Your task to perform on an android device: open app "Indeed Job Search" Image 0: 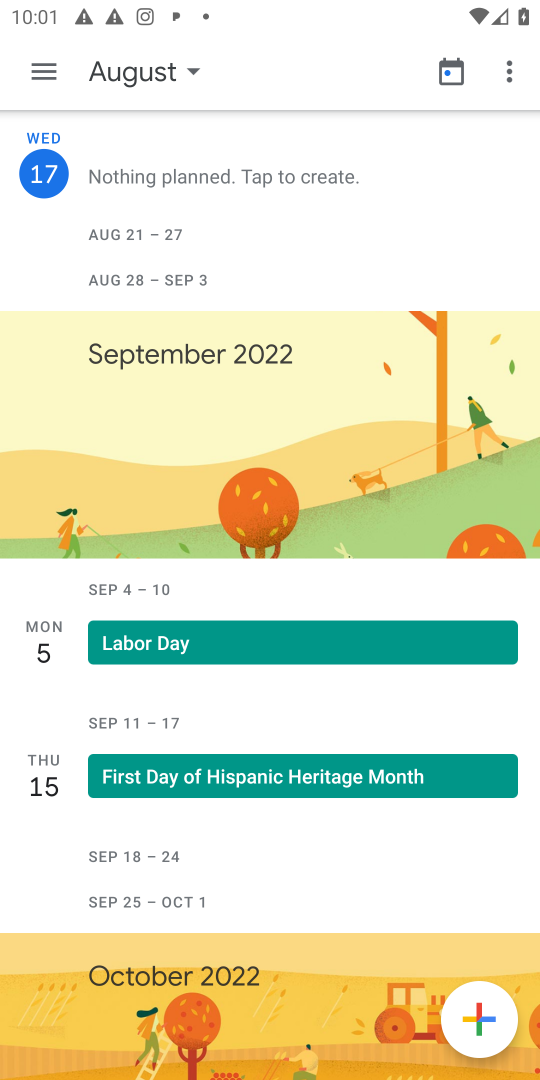
Step 0: press home button
Your task to perform on an android device: open app "Indeed Job Search" Image 1: 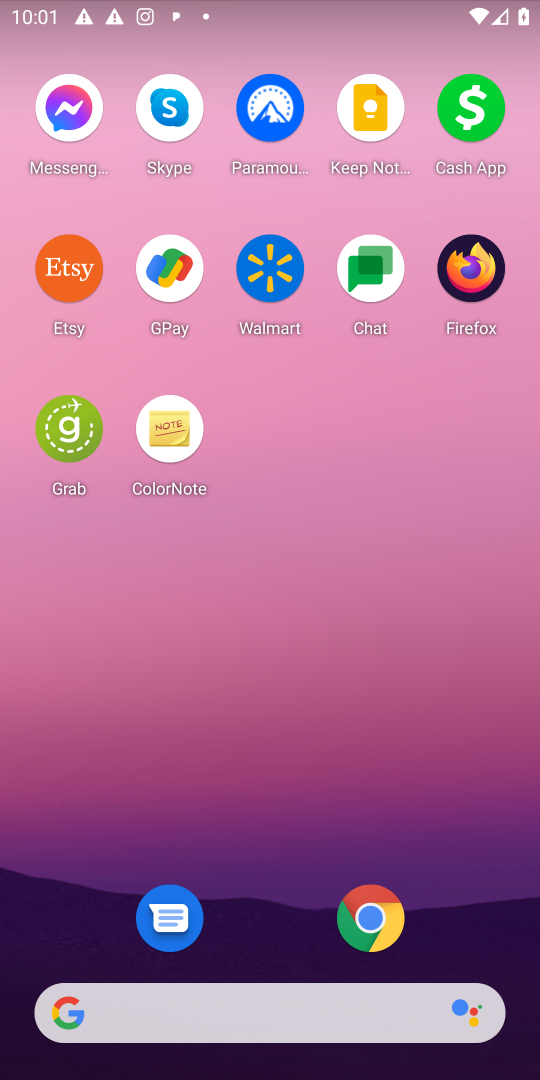
Step 1: press home button
Your task to perform on an android device: open app "Indeed Job Search" Image 2: 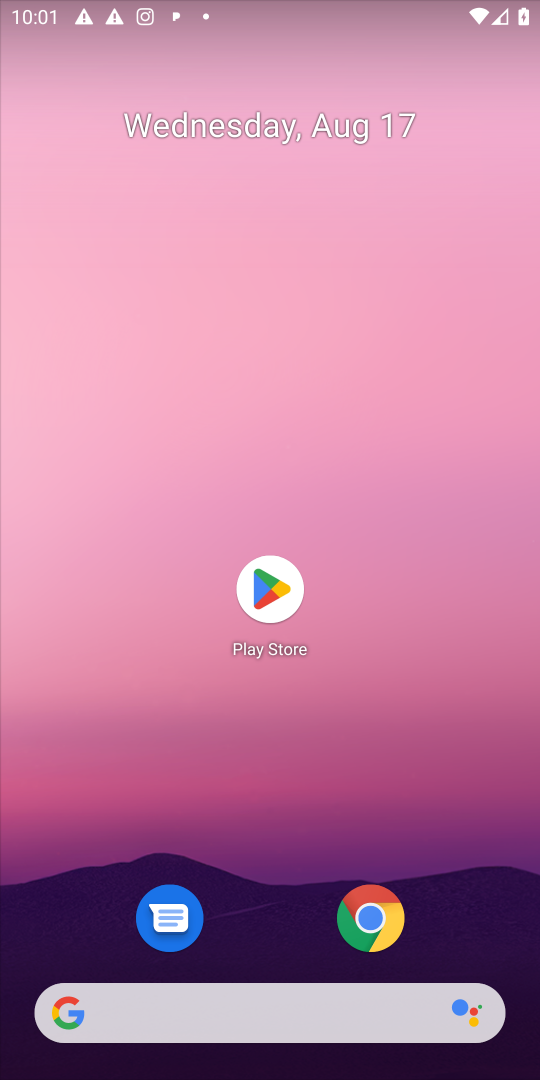
Step 2: click (274, 593)
Your task to perform on an android device: open app "Indeed Job Search" Image 3: 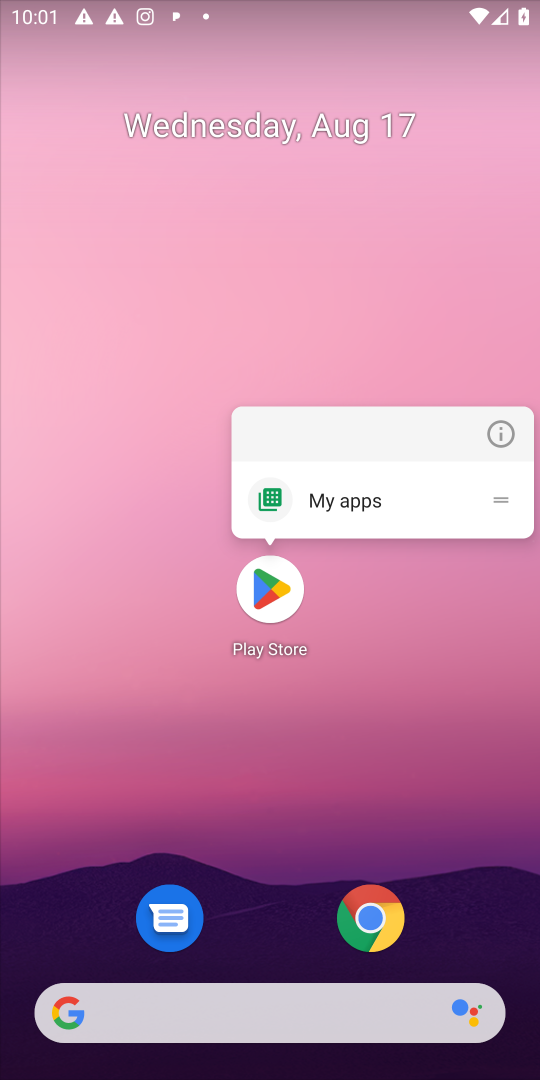
Step 3: click (274, 593)
Your task to perform on an android device: open app "Indeed Job Search" Image 4: 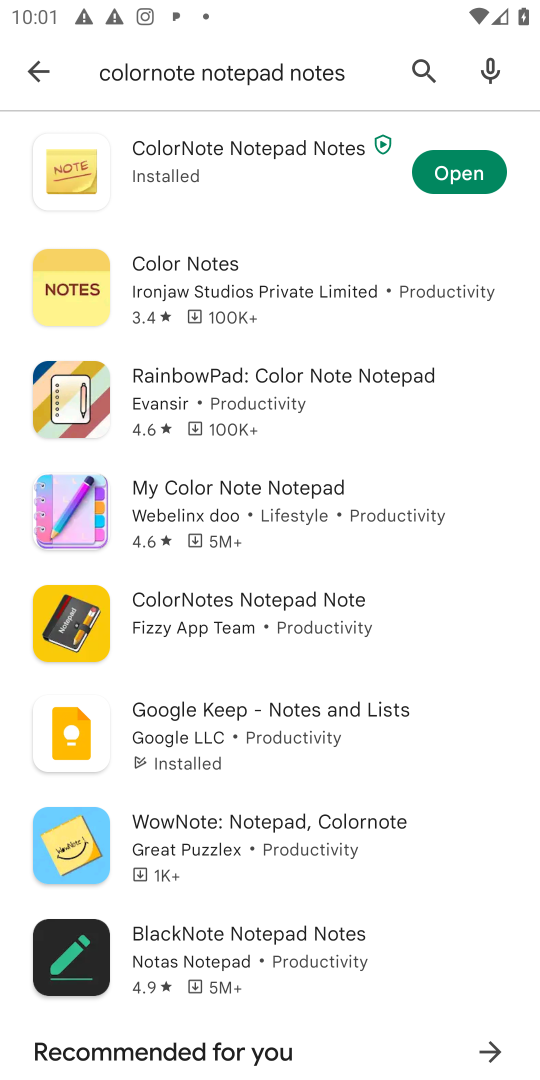
Step 4: click (417, 72)
Your task to perform on an android device: open app "Indeed Job Search" Image 5: 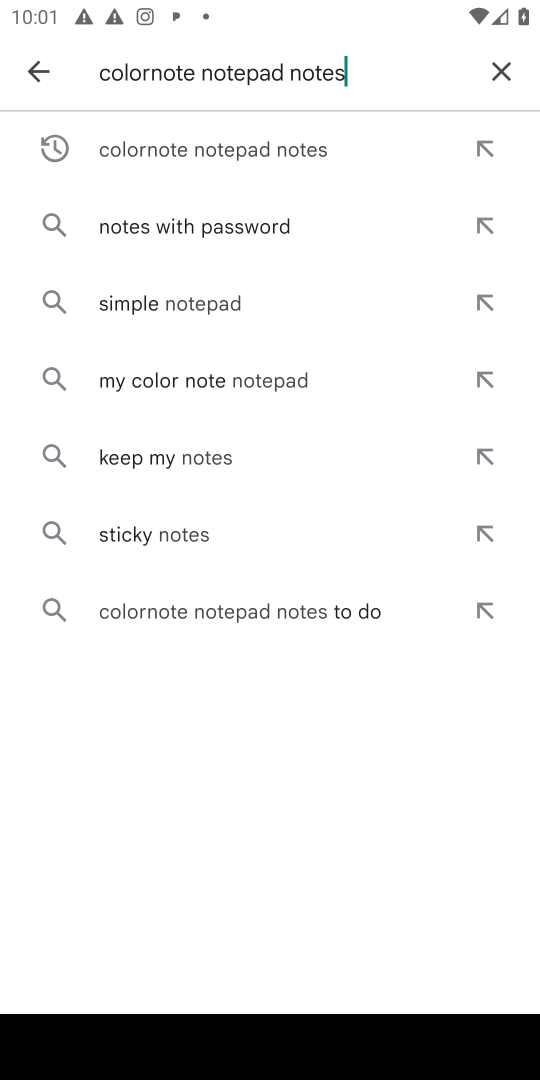
Step 5: click (490, 72)
Your task to perform on an android device: open app "Indeed Job Search" Image 6: 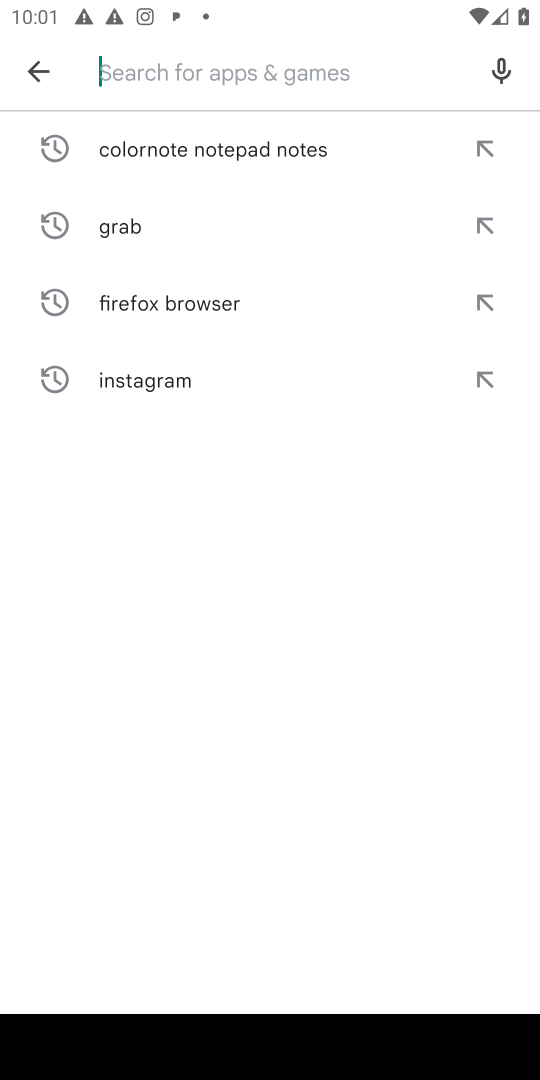
Step 6: type "Indeed Job Search"
Your task to perform on an android device: open app "Indeed Job Search" Image 7: 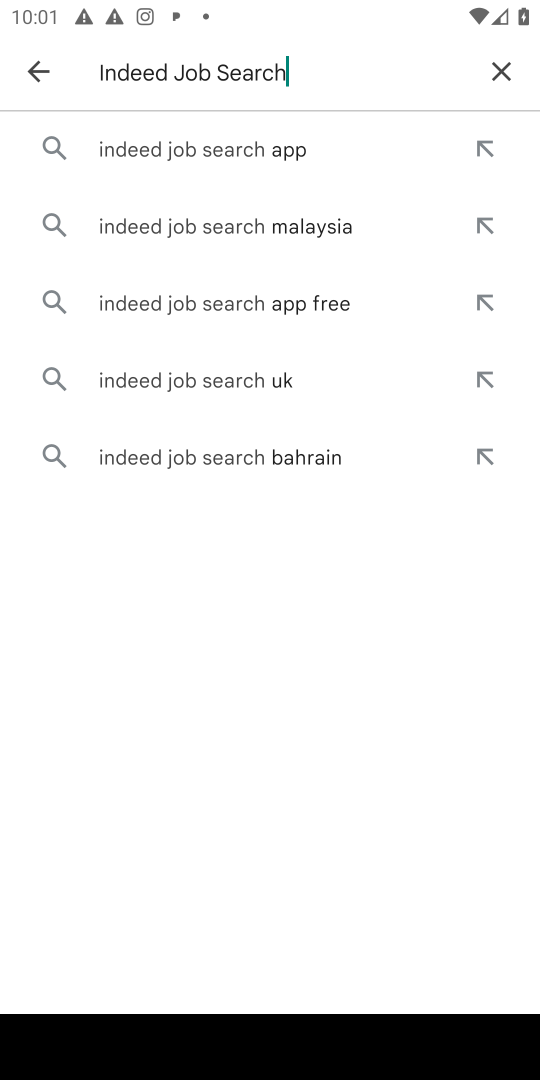
Step 7: click (238, 150)
Your task to perform on an android device: open app "Indeed Job Search" Image 8: 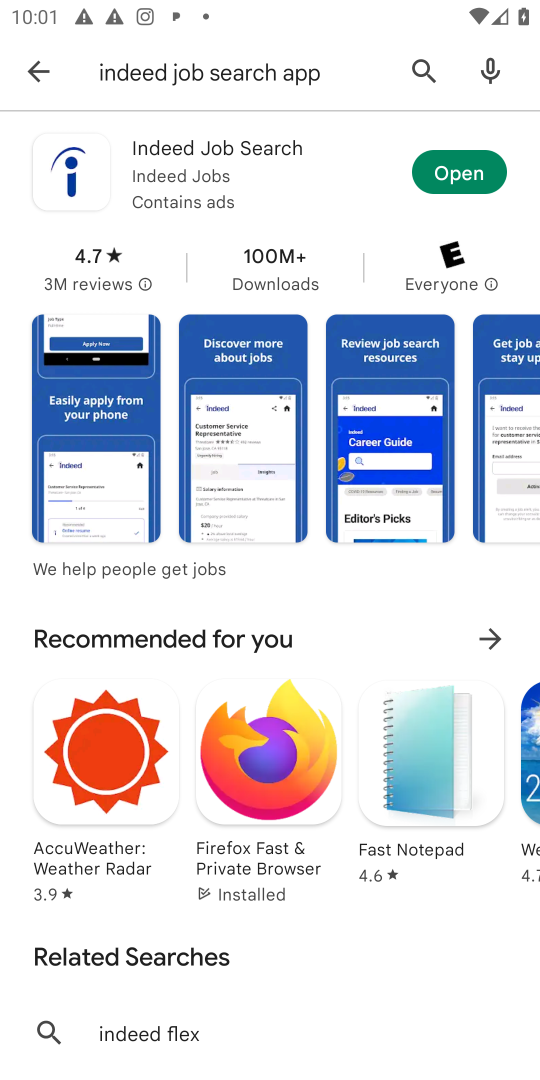
Step 8: click (448, 163)
Your task to perform on an android device: open app "Indeed Job Search" Image 9: 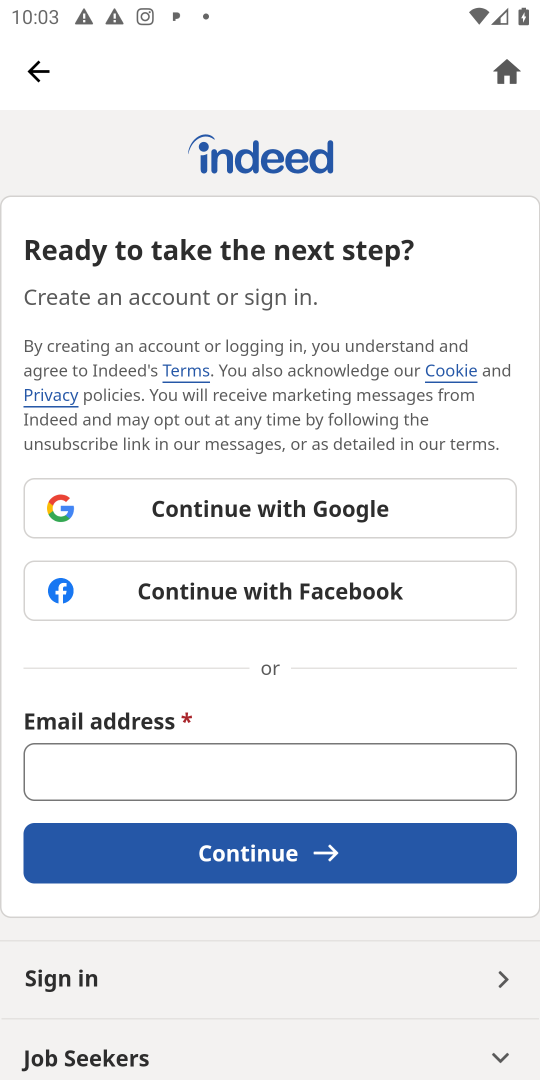
Step 9: task complete